Your task to perform on an android device: change keyboard looks Image 0: 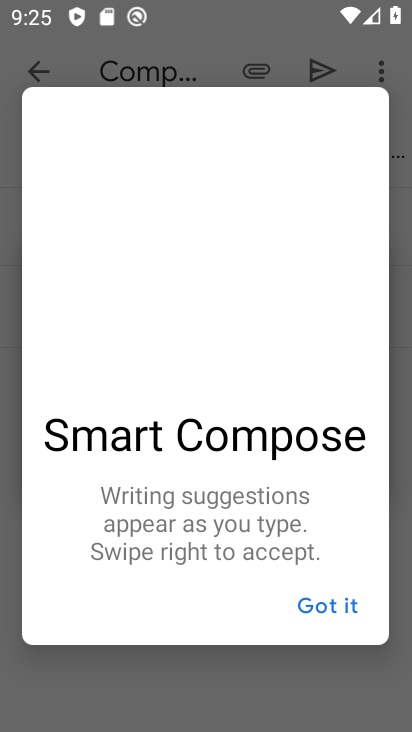
Step 0: press home button
Your task to perform on an android device: change keyboard looks Image 1: 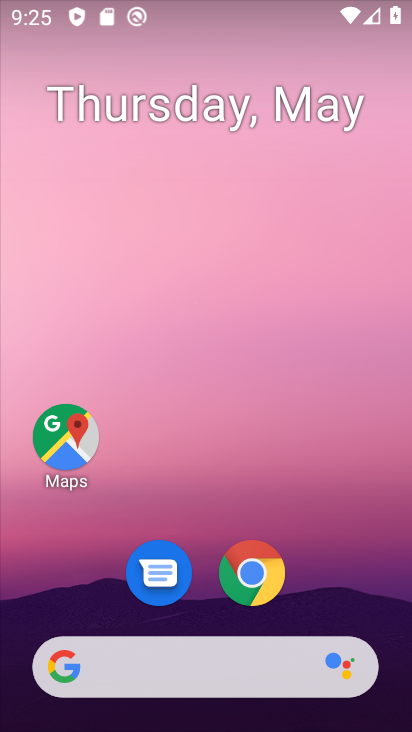
Step 1: drag from (197, 619) to (155, 155)
Your task to perform on an android device: change keyboard looks Image 2: 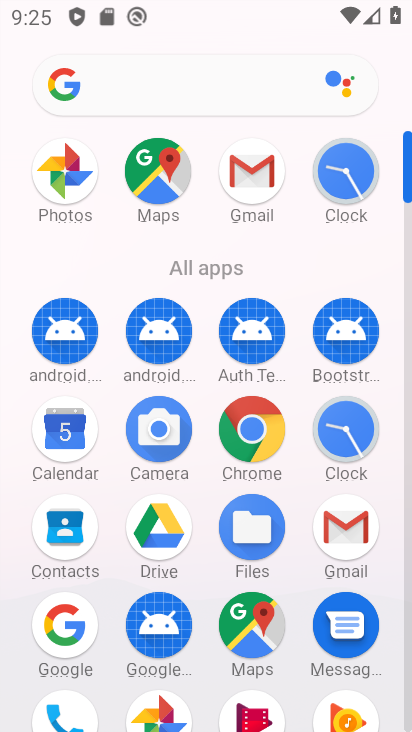
Step 2: drag from (109, 646) to (64, 138)
Your task to perform on an android device: change keyboard looks Image 3: 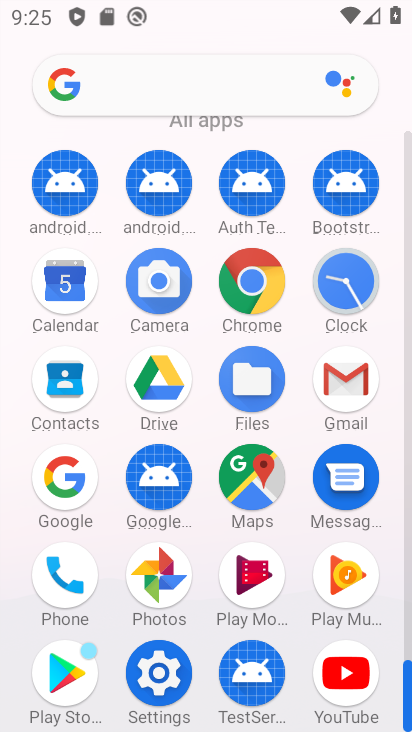
Step 3: click (164, 659)
Your task to perform on an android device: change keyboard looks Image 4: 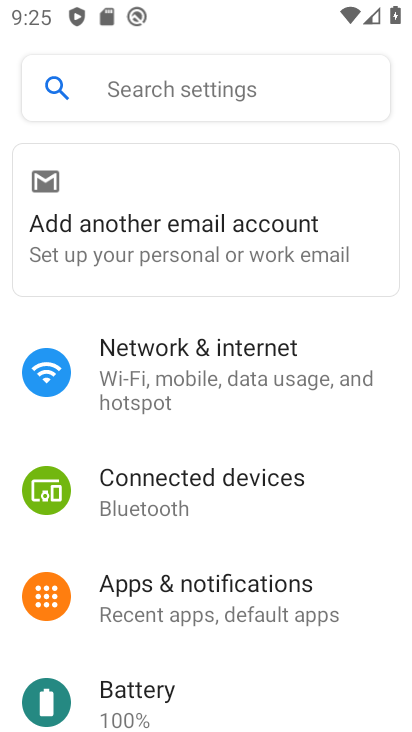
Step 4: drag from (164, 659) to (132, 178)
Your task to perform on an android device: change keyboard looks Image 5: 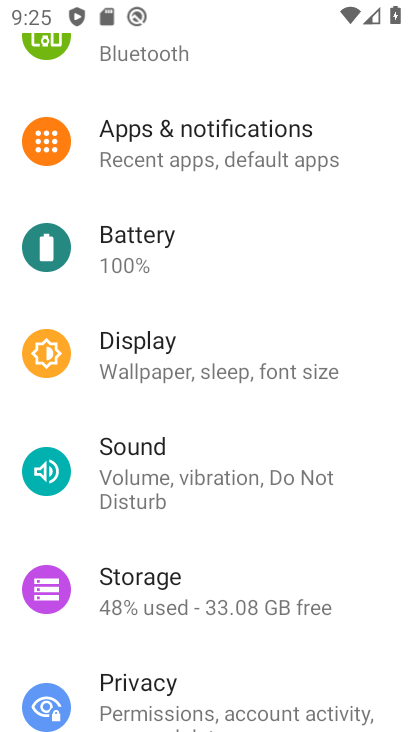
Step 5: drag from (215, 626) to (196, 154)
Your task to perform on an android device: change keyboard looks Image 6: 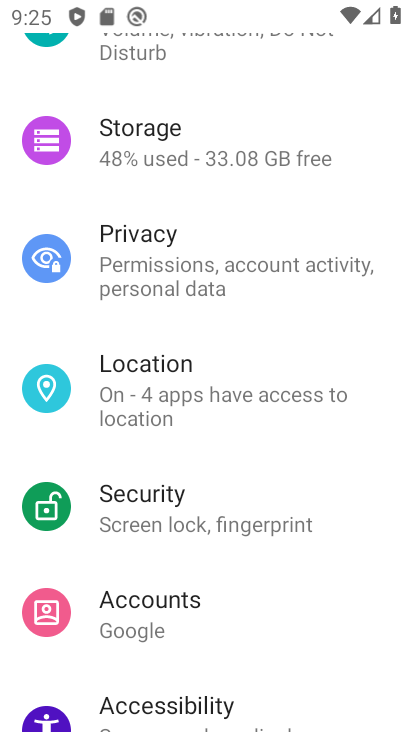
Step 6: drag from (86, 653) to (53, 129)
Your task to perform on an android device: change keyboard looks Image 7: 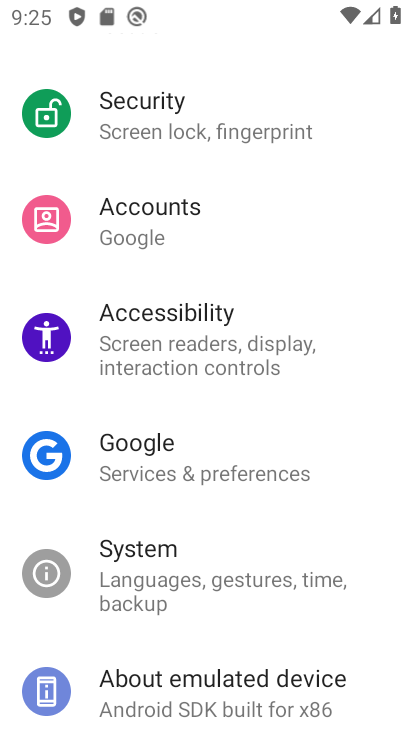
Step 7: click (131, 568)
Your task to perform on an android device: change keyboard looks Image 8: 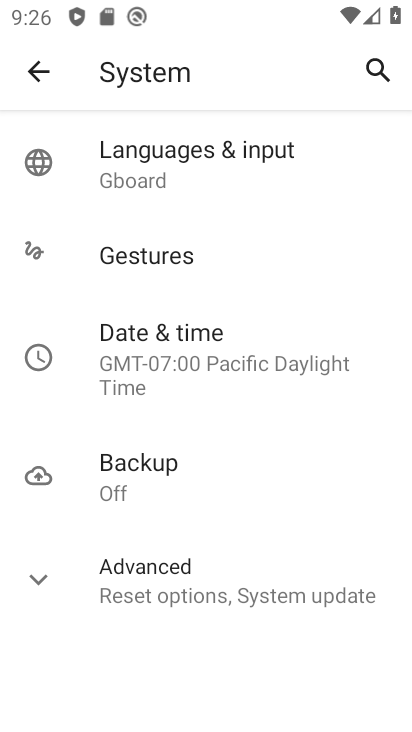
Step 8: click (167, 152)
Your task to perform on an android device: change keyboard looks Image 9: 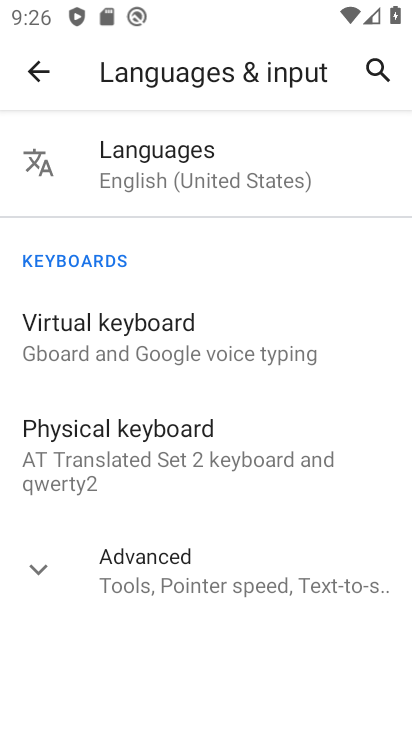
Step 9: click (164, 345)
Your task to perform on an android device: change keyboard looks Image 10: 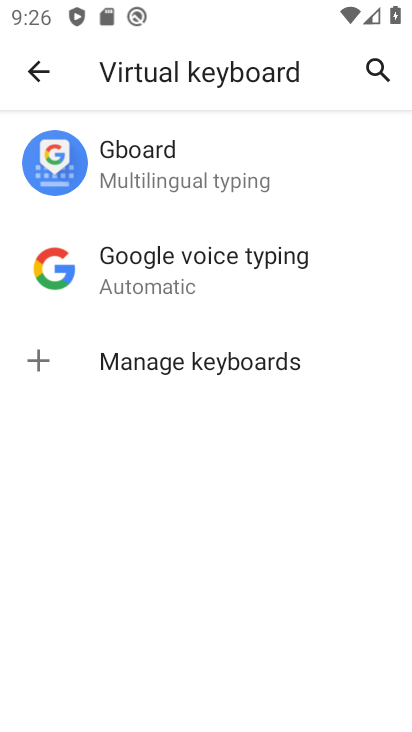
Step 10: click (179, 123)
Your task to perform on an android device: change keyboard looks Image 11: 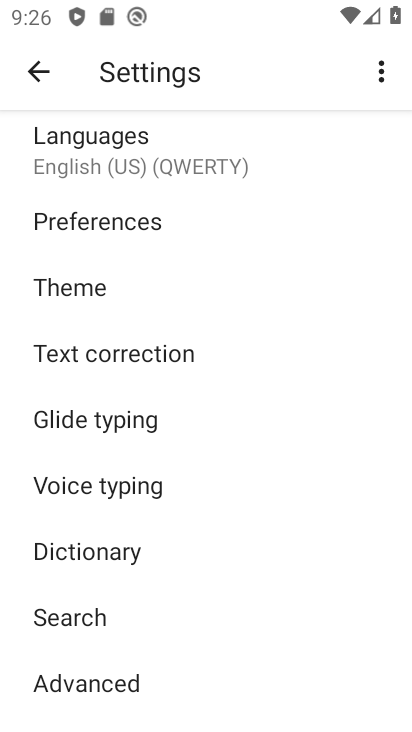
Step 11: click (95, 311)
Your task to perform on an android device: change keyboard looks Image 12: 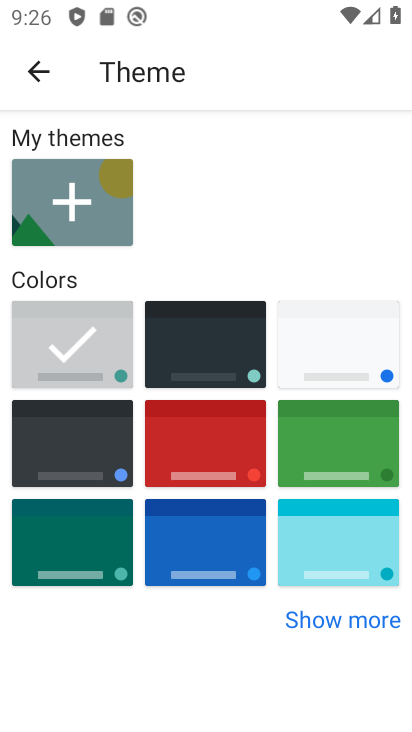
Step 12: task complete